Your task to perform on an android device: Turn on the flashlight Image 0: 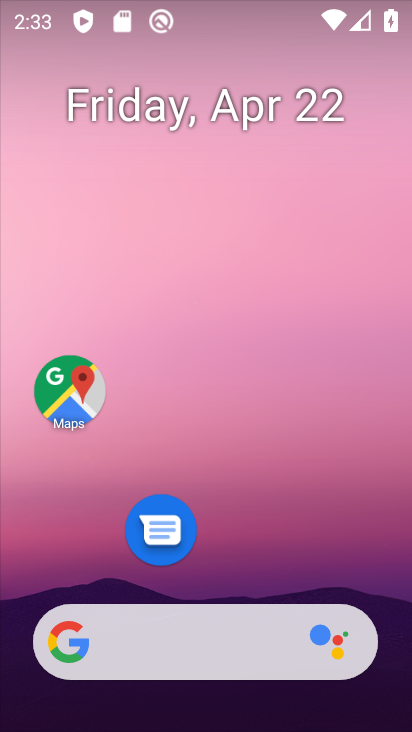
Step 0: drag from (257, 550) to (252, 20)
Your task to perform on an android device: Turn on the flashlight Image 1: 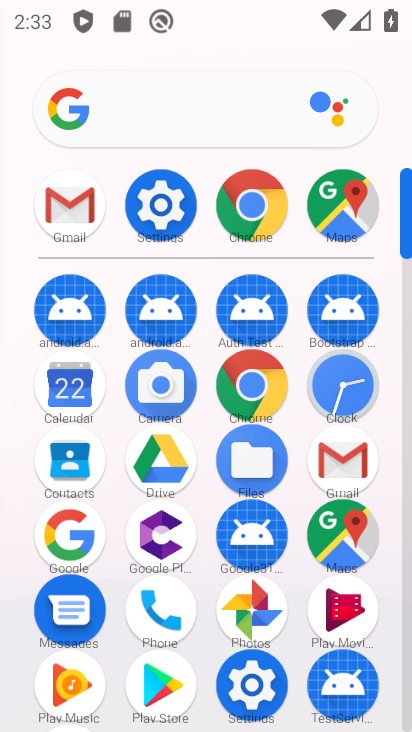
Step 1: click (165, 208)
Your task to perform on an android device: Turn on the flashlight Image 2: 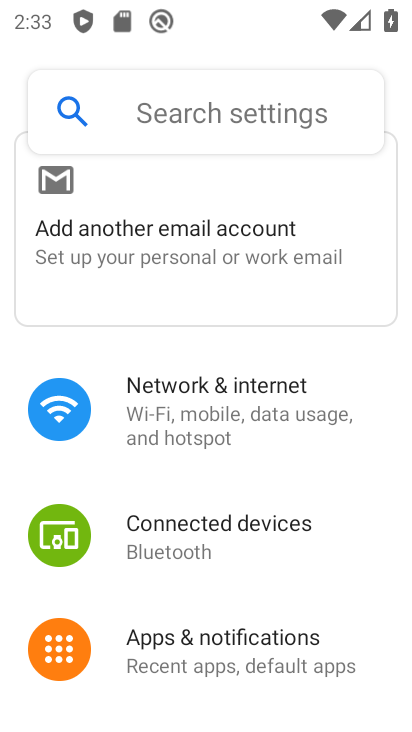
Step 2: click (192, 382)
Your task to perform on an android device: Turn on the flashlight Image 3: 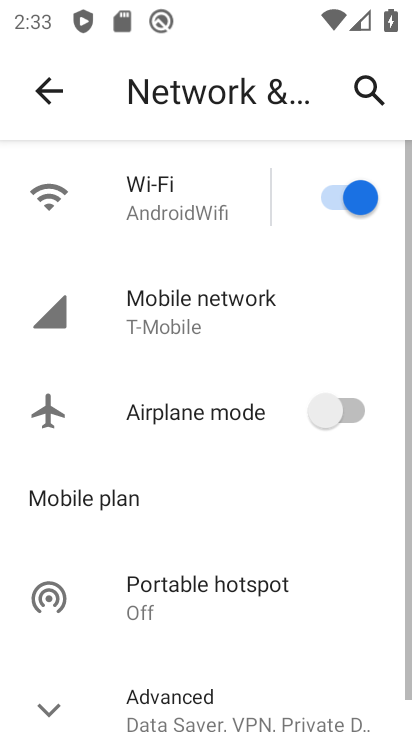
Step 3: task complete